Your task to perform on an android device: delete browsing data in the chrome app Image 0: 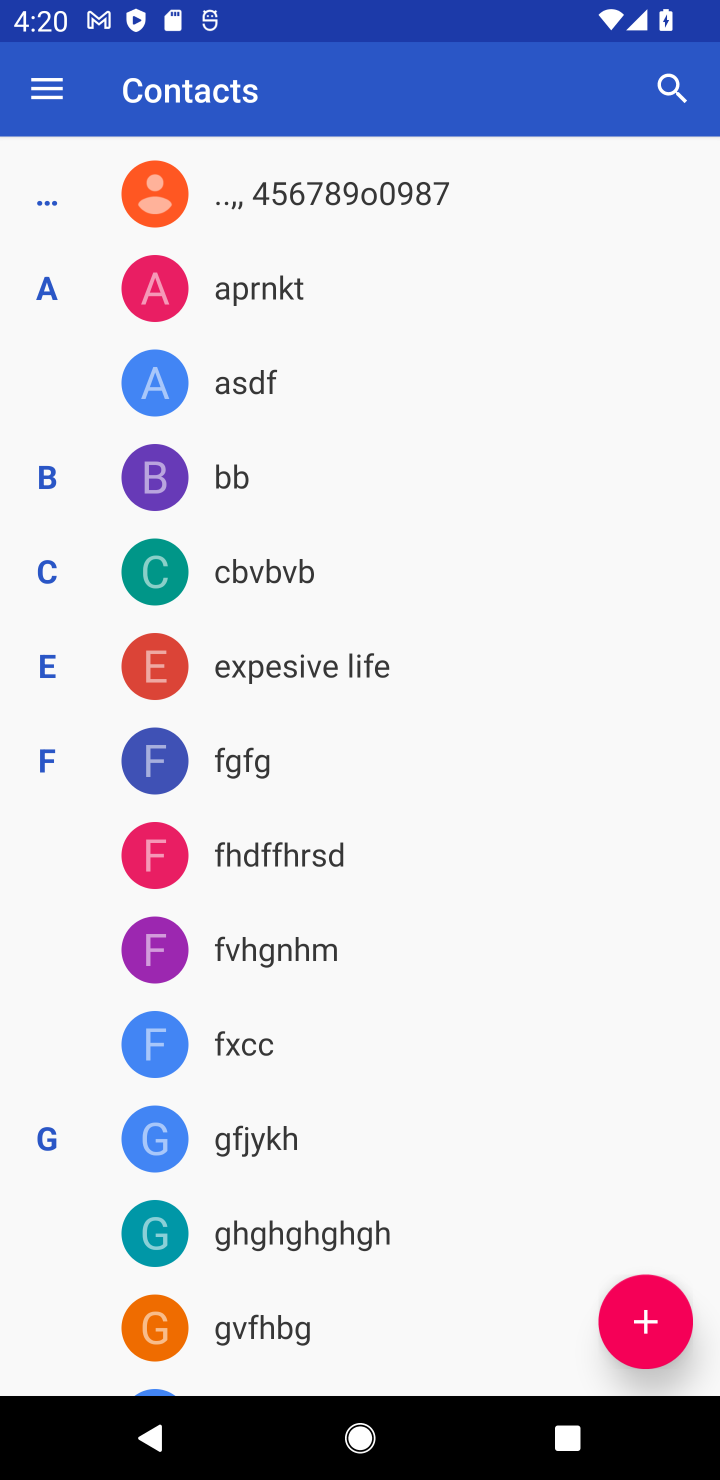
Step 0: task complete